Your task to perform on an android device: When is my next meeting? Image 0: 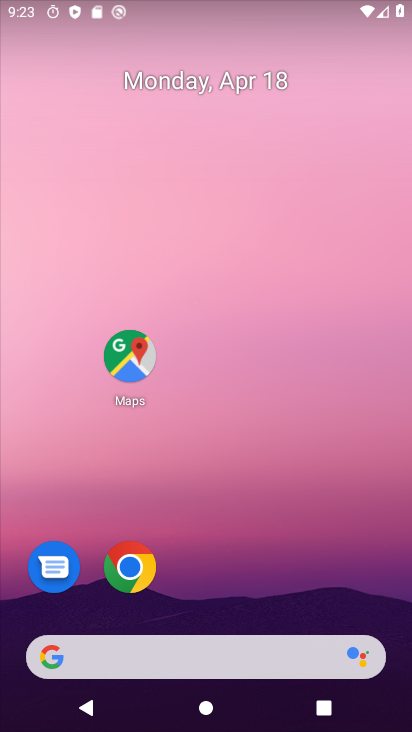
Step 0: drag from (290, 616) to (412, 199)
Your task to perform on an android device: When is my next meeting? Image 1: 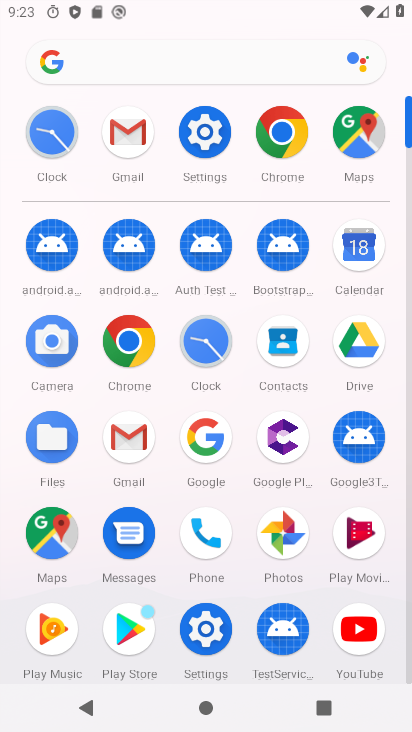
Step 1: click (341, 457)
Your task to perform on an android device: When is my next meeting? Image 2: 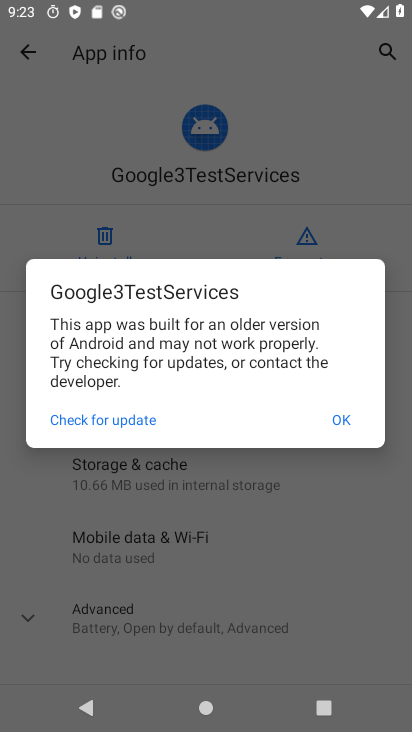
Step 2: press home button
Your task to perform on an android device: When is my next meeting? Image 3: 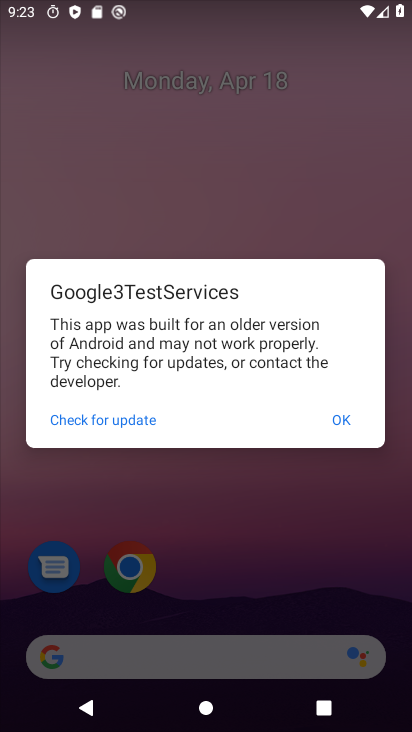
Step 3: click (357, 423)
Your task to perform on an android device: When is my next meeting? Image 4: 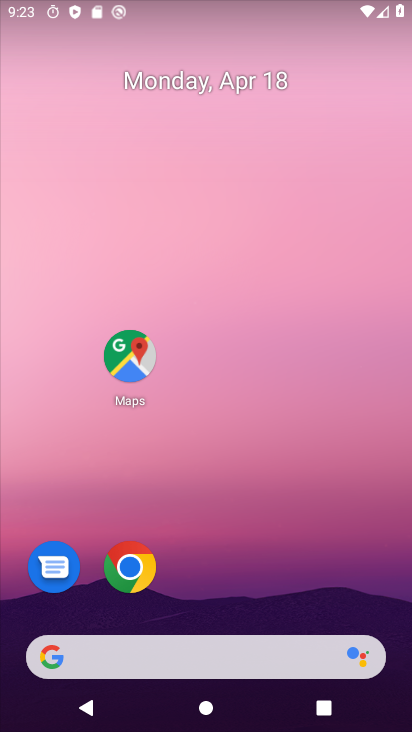
Step 4: drag from (280, 665) to (314, 198)
Your task to perform on an android device: When is my next meeting? Image 5: 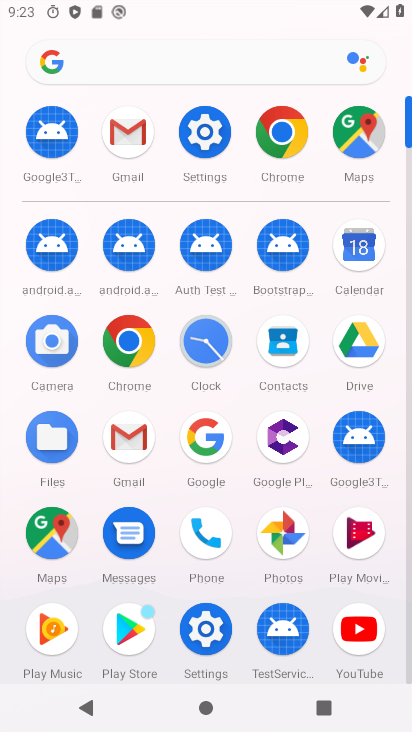
Step 5: click (352, 244)
Your task to perform on an android device: When is my next meeting? Image 6: 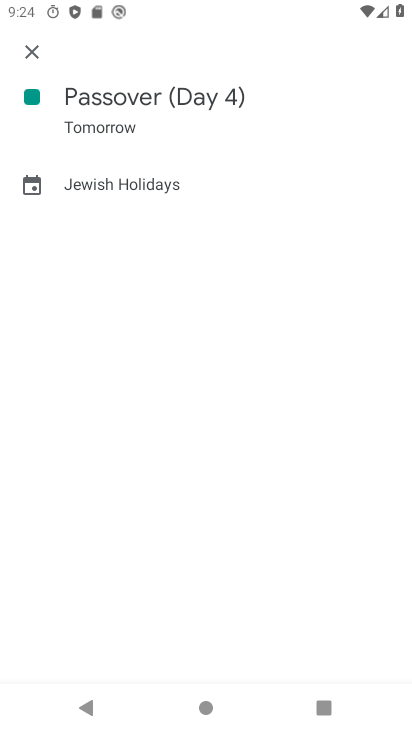
Step 6: click (25, 57)
Your task to perform on an android device: When is my next meeting? Image 7: 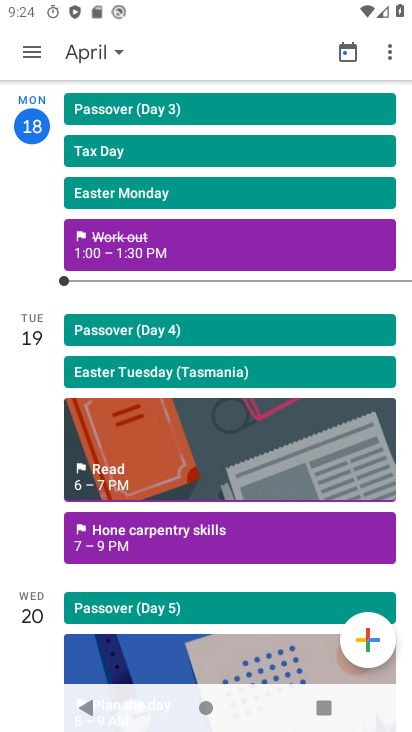
Step 7: click (43, 59)
Your task to perform on an android device: When is my next meeting? Image 8: 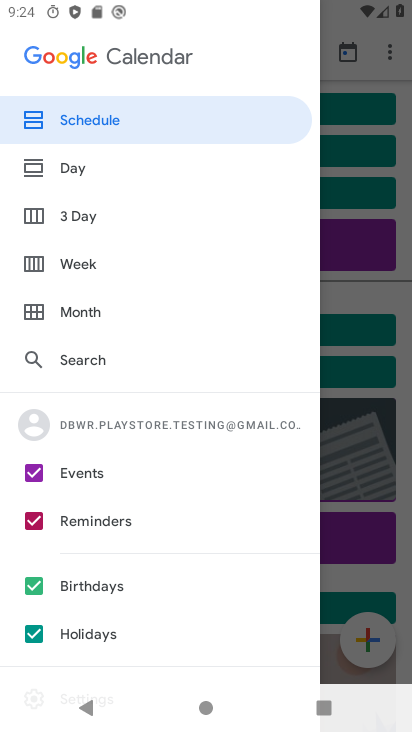
Step 8: click (135, 118)
Your task to perform on an android device: When is my next meeting? Image 9: 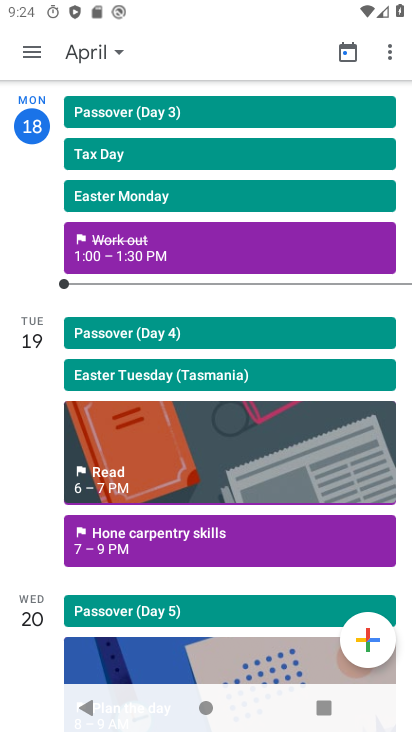
Step 9: task complete